Your task to perform on an android device: install app "File Manager" Image 0: 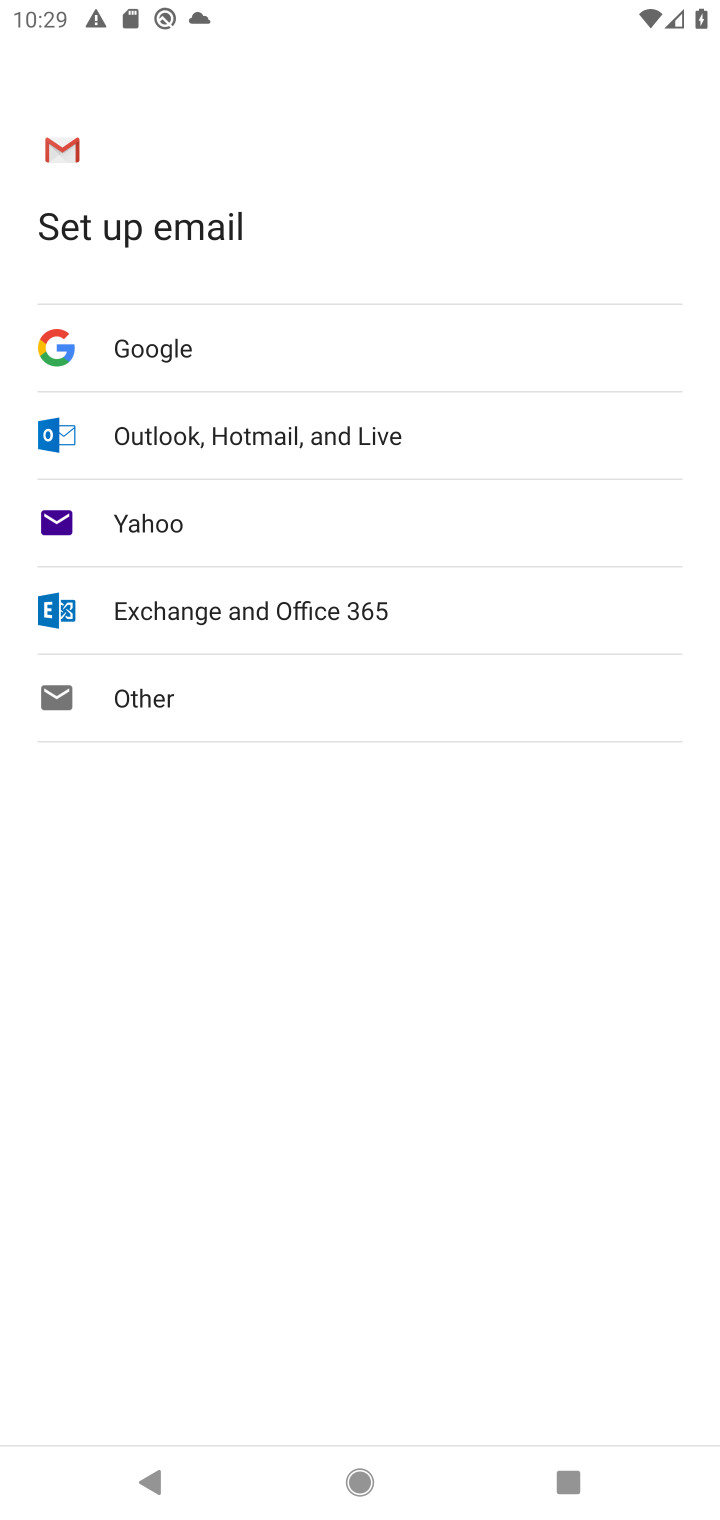
Step 0: press home button
Your task to perform on an android device: install app "File Manager" Image 1: 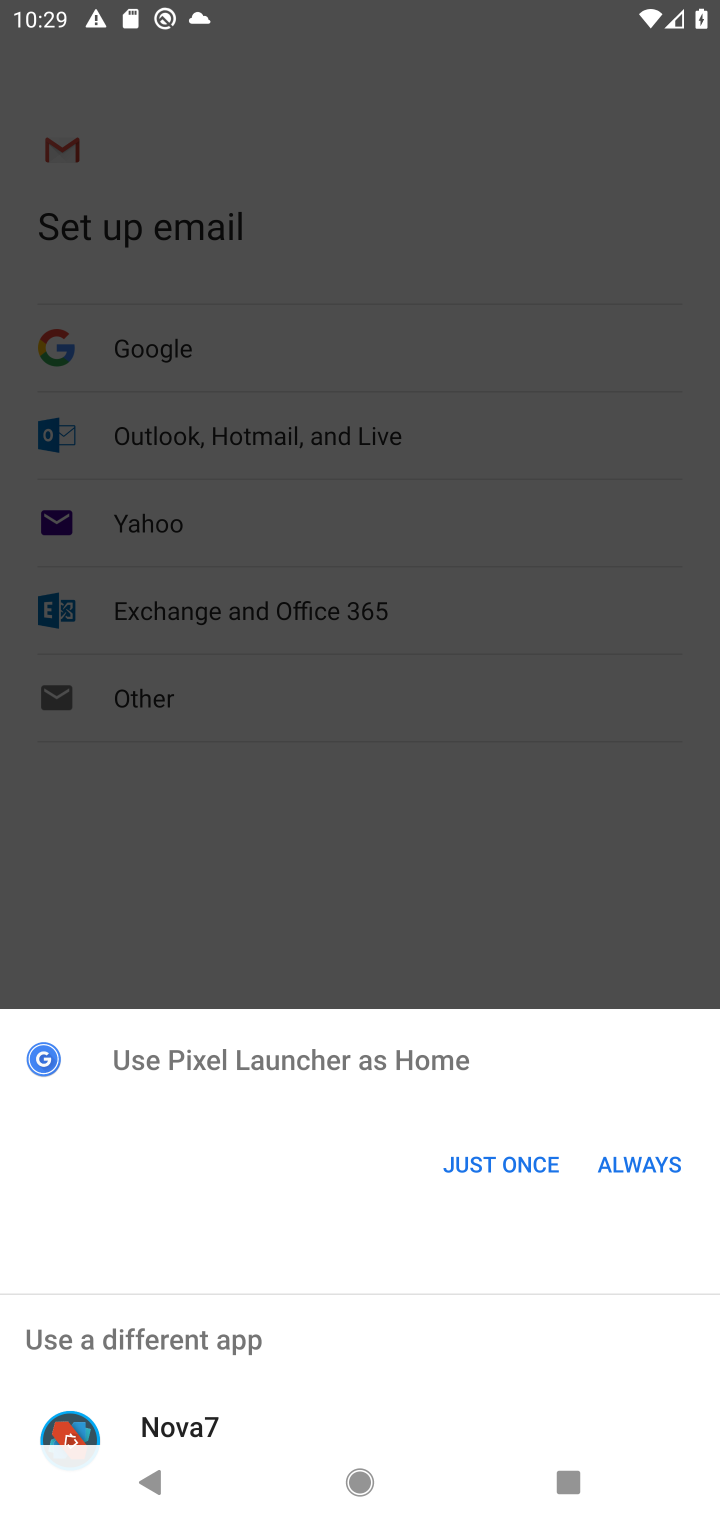
Step 1: click (503, 1145)
Your task to perform on an android device: install app "File Manager" Image 2: 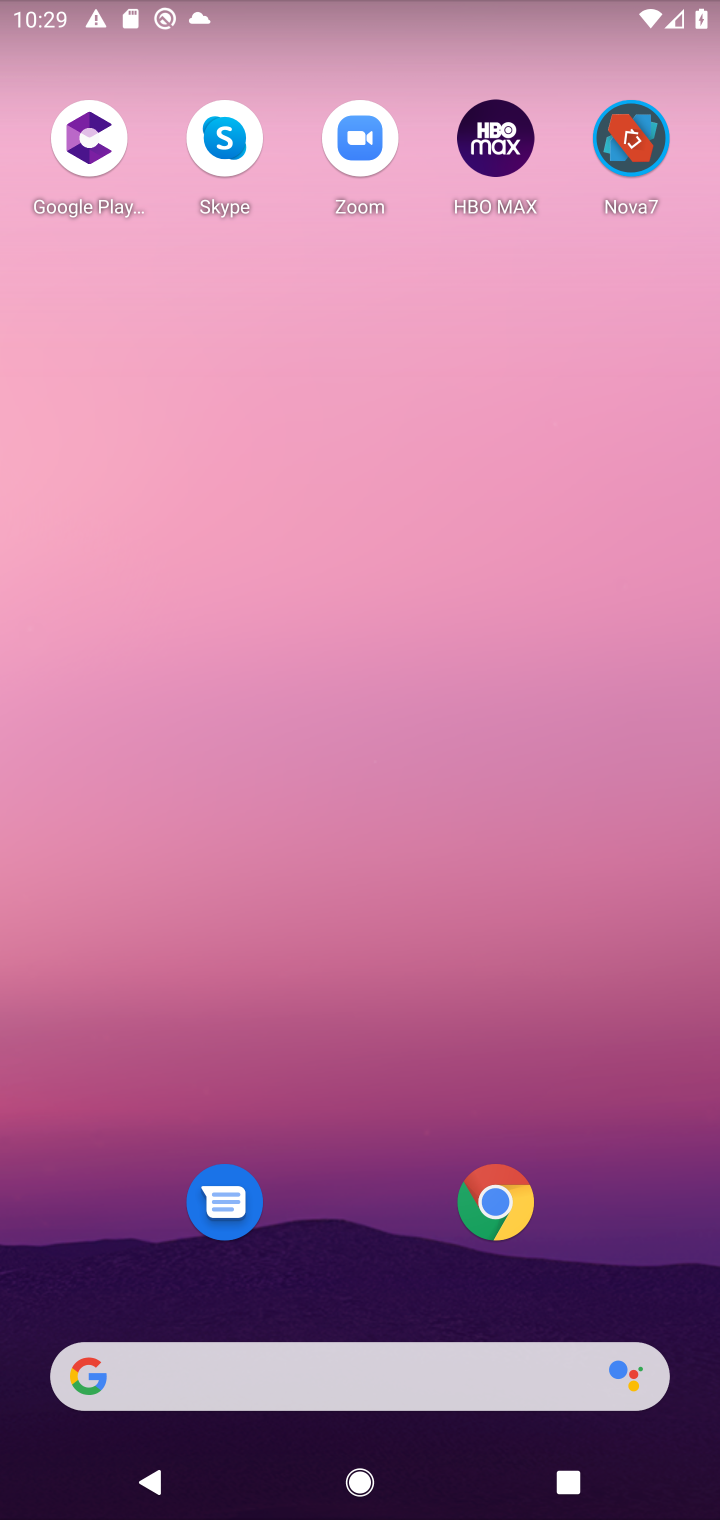
Step 2: click (315, 1362)
Your task to perform on an android device: install app "File Manager" Image 3: 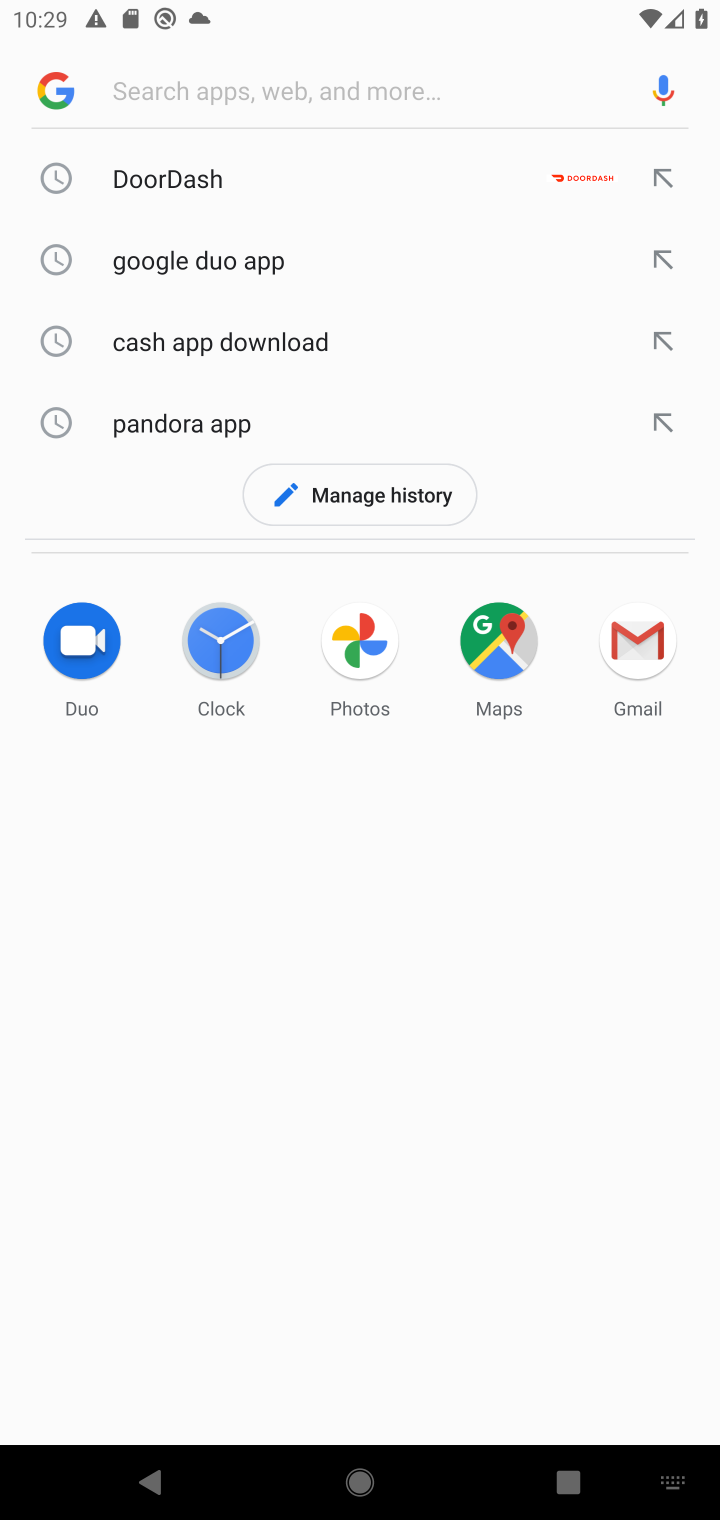
Step 3: type "filemanager"
Your task to perform on an android device: install app "File Manager" Image 4: 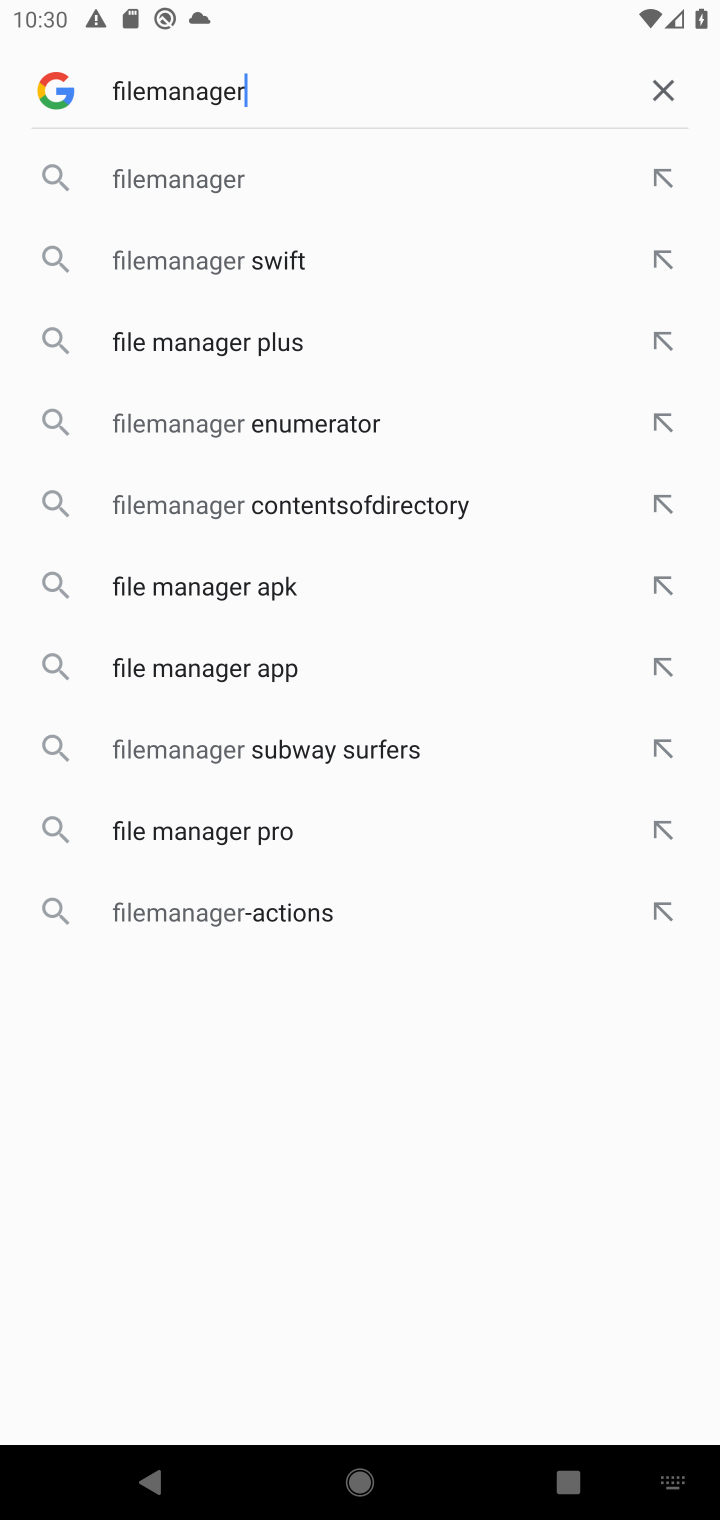
Step 4: click (451, 165)
Your task to perform on an android device: install app "File Manager" Image 5: 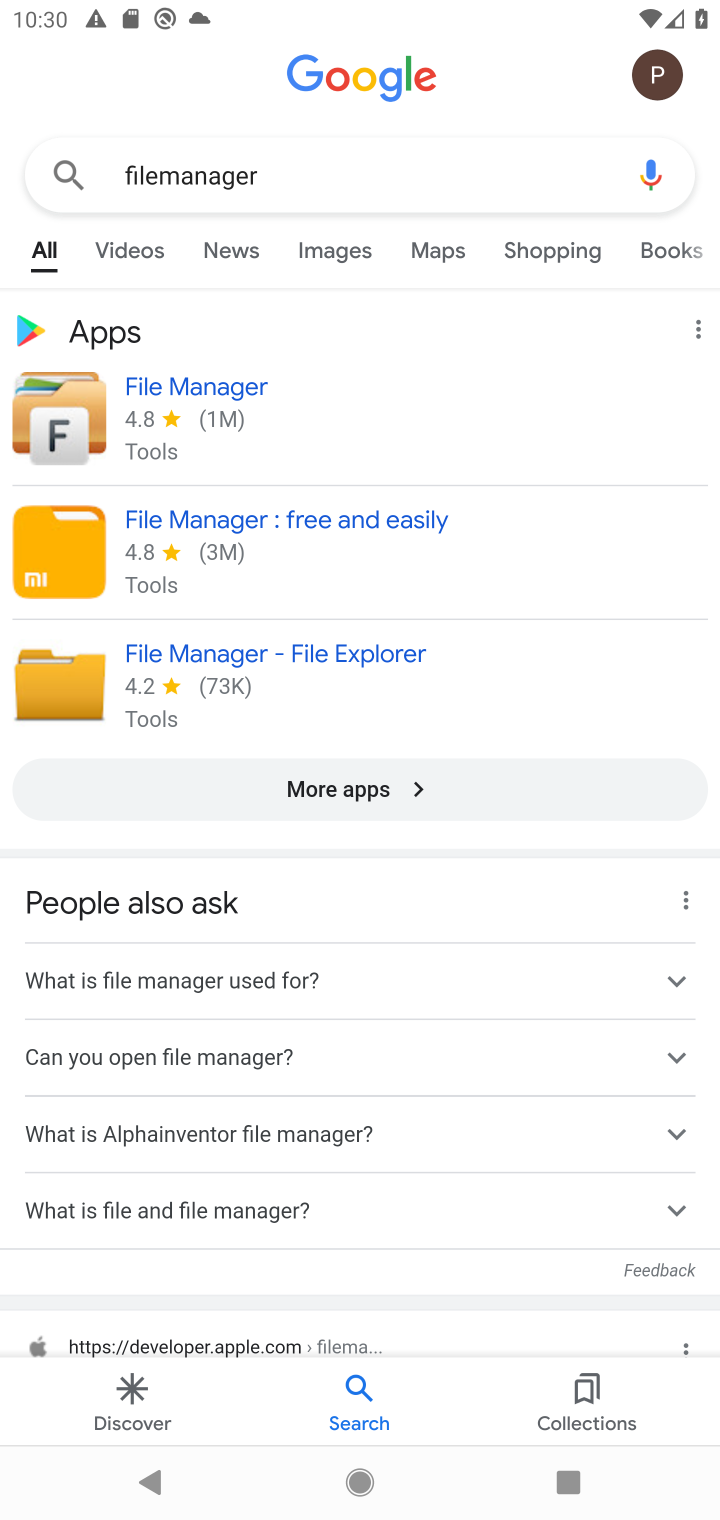
Step 5: click (434, 440)
Your task to perform on an android device: install app "File Manager" Image 6: 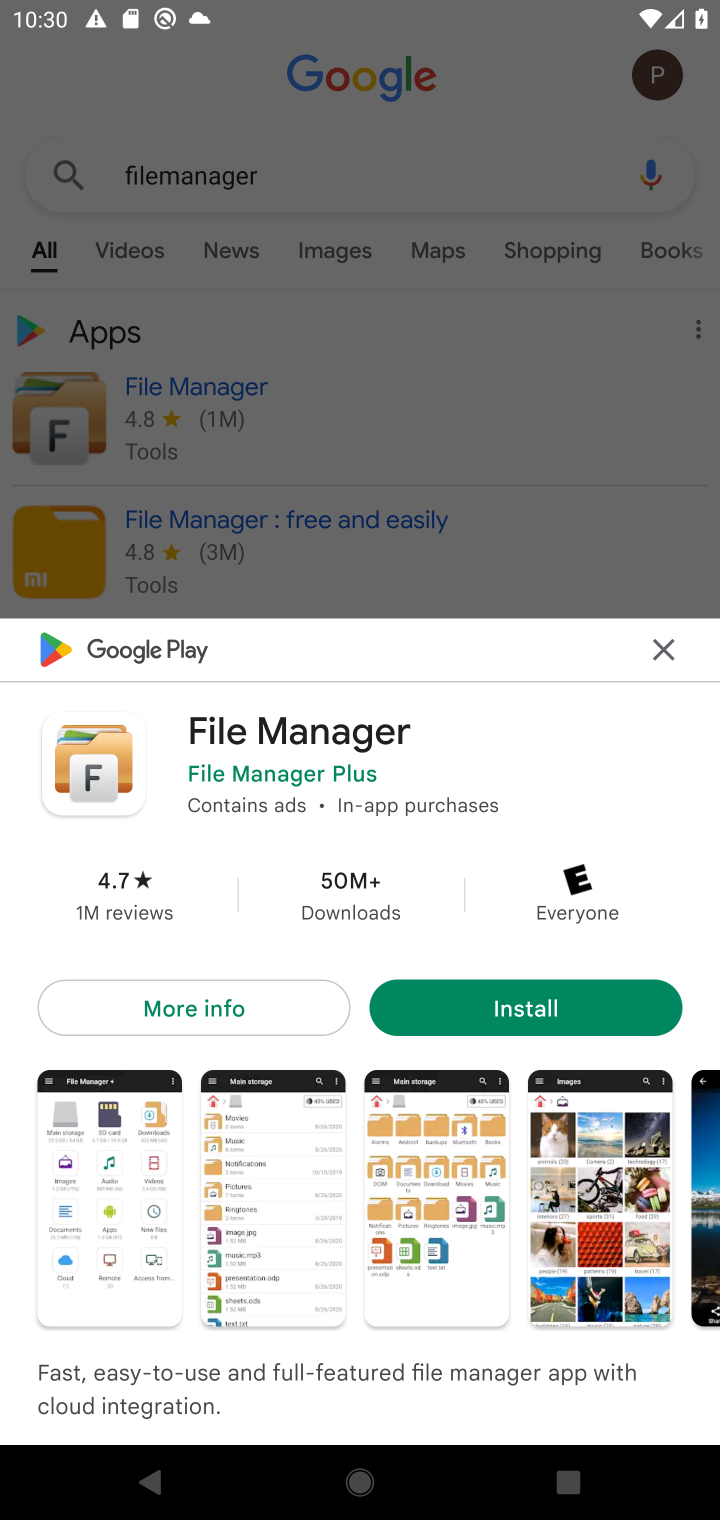
Step 6: click (530, 1014)
Your task to perform on an android device: install app "File Manager" Image 7: 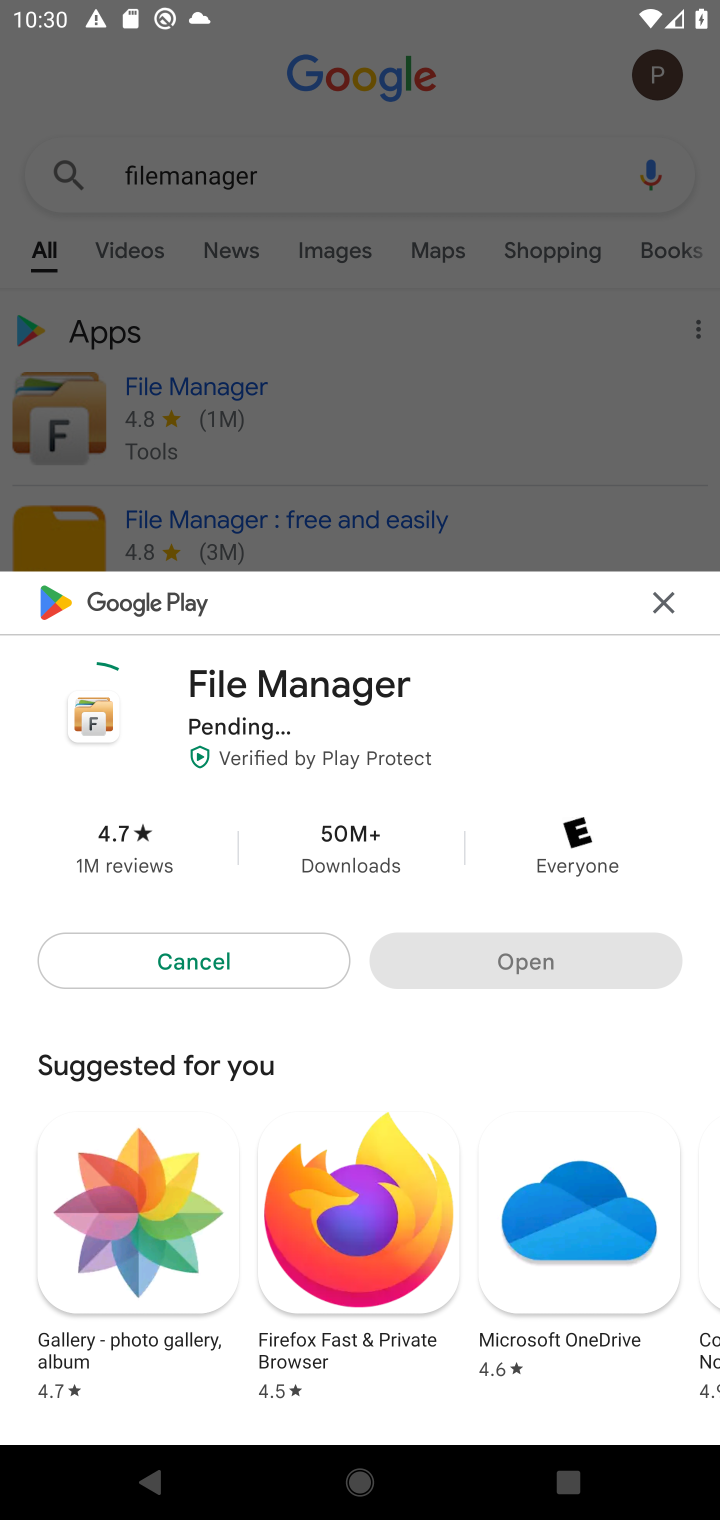
Step 7: task complete